Your task to perform on an android device: read, delete, or share a saved page in the chrome app Image 0: 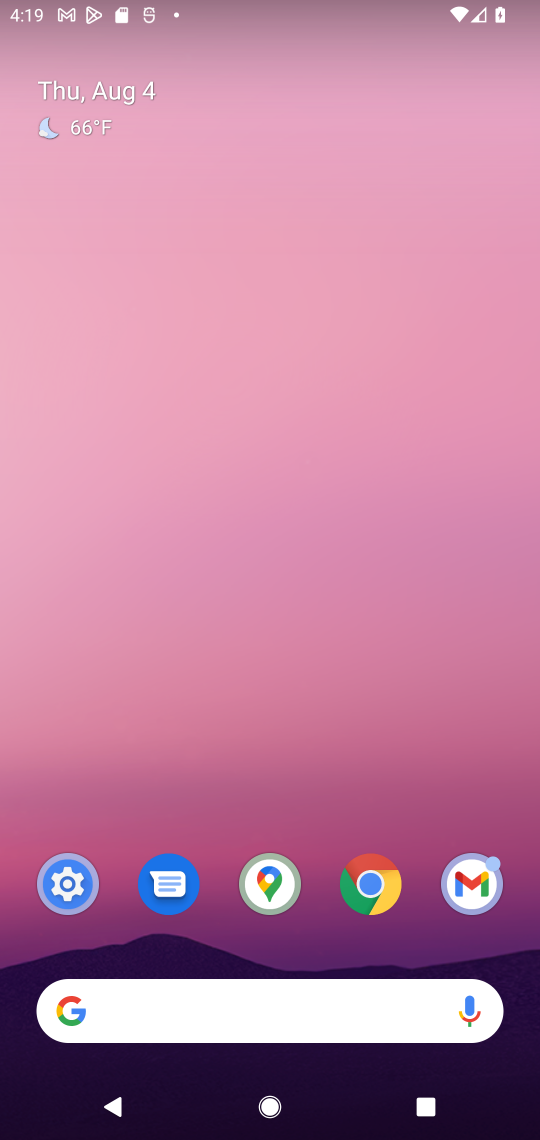
Step 0: click (374, 911)
Your task to perform on an android device: read, delete, or share a saved page in the chrome app Image 1: 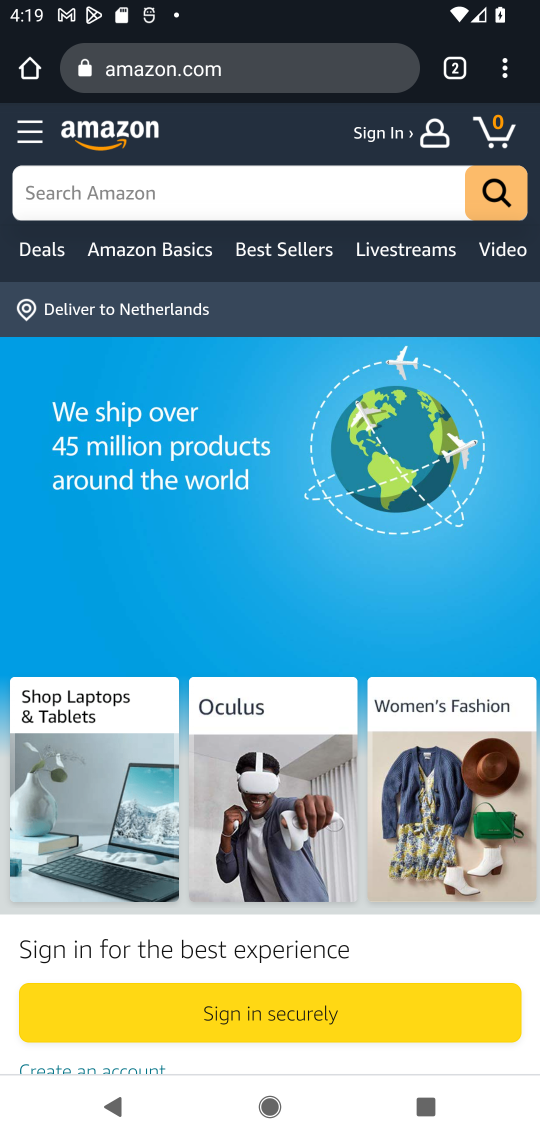
Step 1: click (522, 67)
Your task to perform on an android device: read, delete, or share a saved page in the chrome app Image 2: 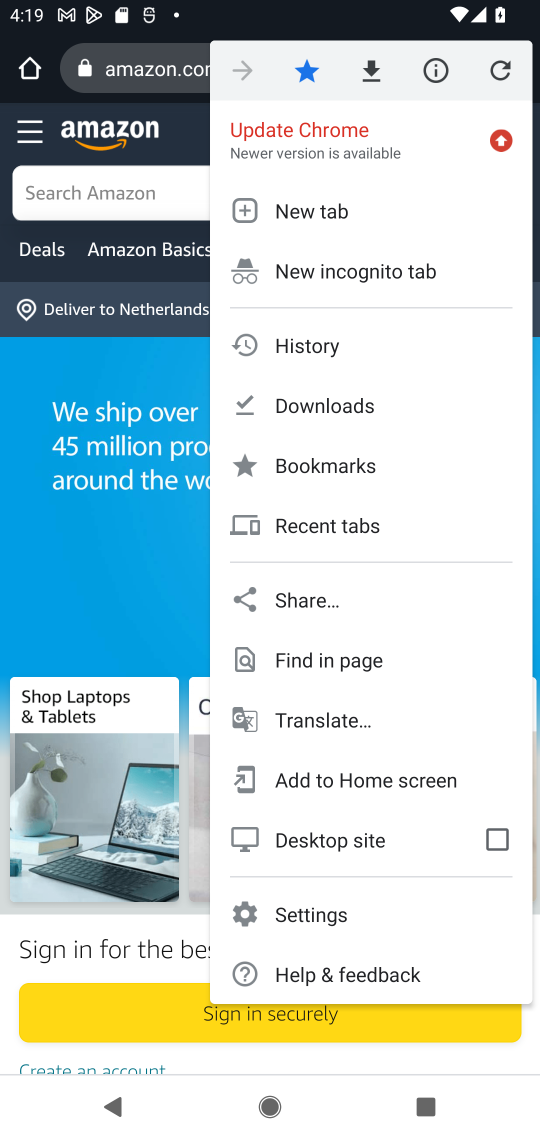
Step 2: click (328, 430)
Your task to perform on an android device: read, delete, or share a saved page in the chrome app Image 3: 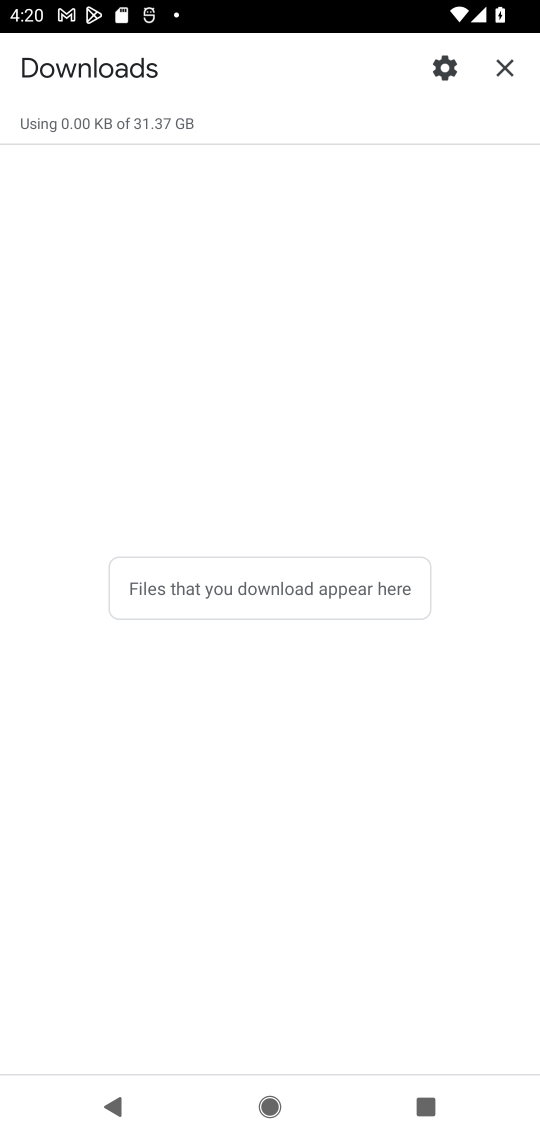
Step 3: task complete